Your task to perform on an android device: Open calendar and show me the third week of next month Image 0: 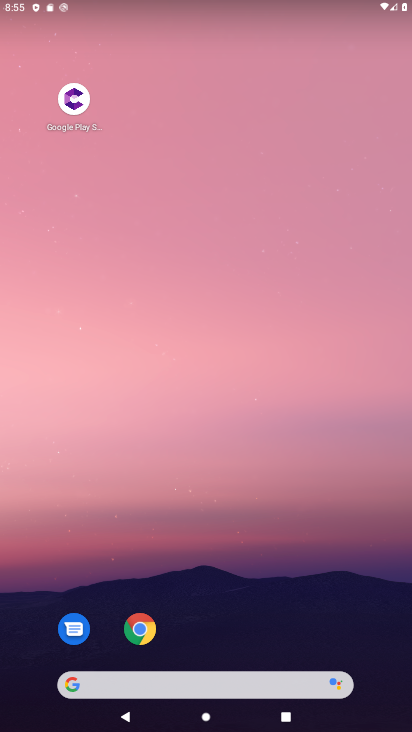
Step 0: drag from (211, 574) to (402, 38)
Your task to perform on an android device: Open calendar and show me the third week of next month Image 1: 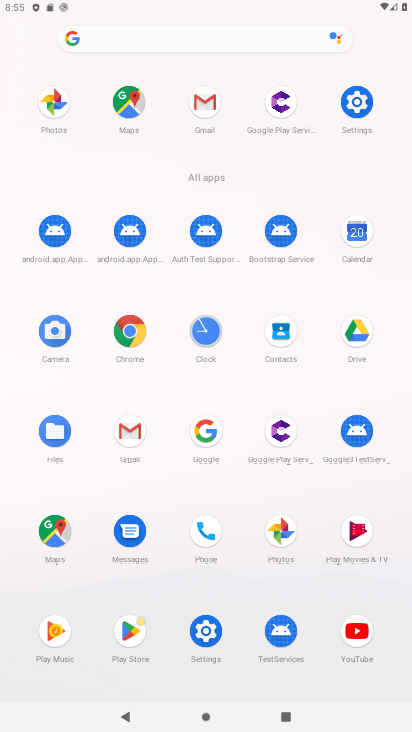
Step 1: click (363, 227)
Your task to perform on an android device: Open calendar and show me the third week of next month Image 2: 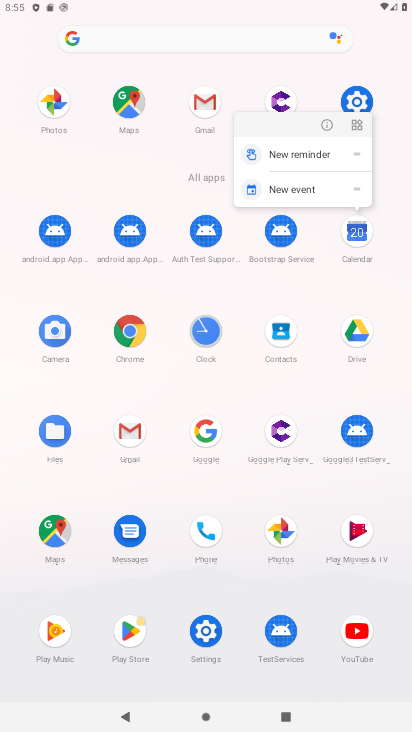
Step 2: click (362, 224)
Your task to perform on an android device: Open calendar and show me the third week of next month Image 3: 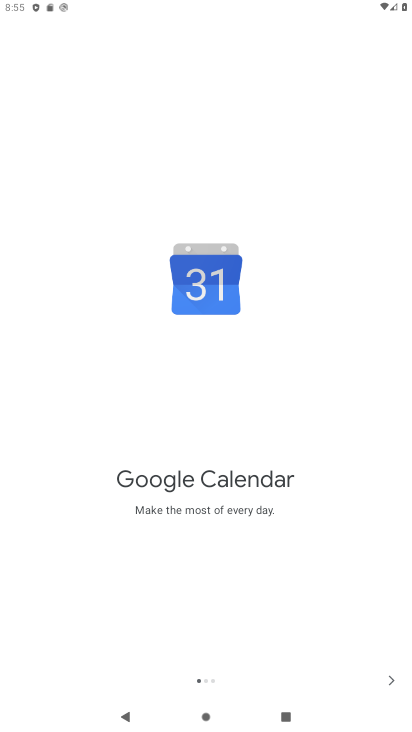
Step 3: click (389, 673)
Your task to perform on an android device: Open calendar and show me the third week of next month Image 4: 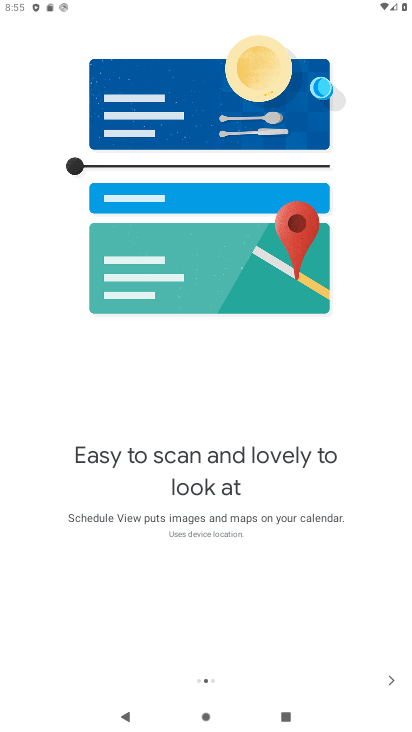
Step 4: click (389, 675)
Your task to perform on an android device: Open calendar and show me the third week of next month Image 5: 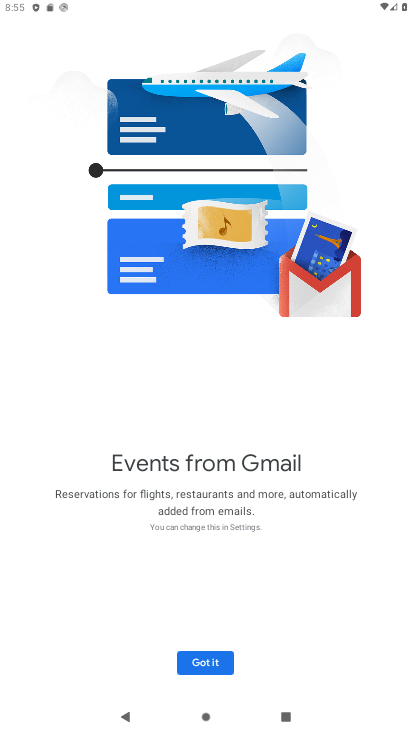
Step 5: click (206, 658)
Your task to perform on an android device: Open calendar and show me the third week of next month Image 6: 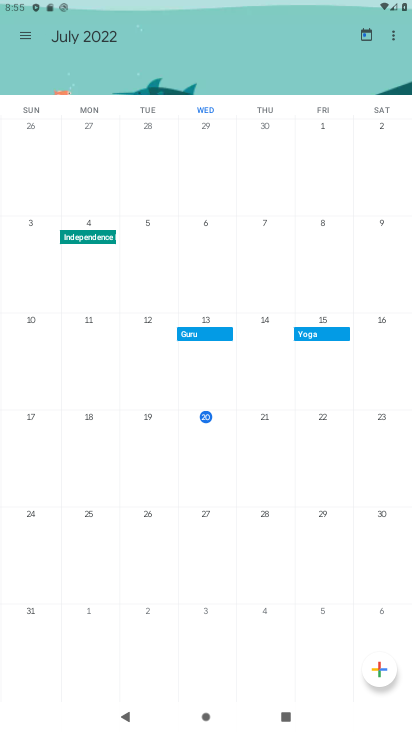
Step 6: drag from (370, 427) to (6, 444)
Your task to perform on an android device: Open calendar and show me the third week of next month Image 7: 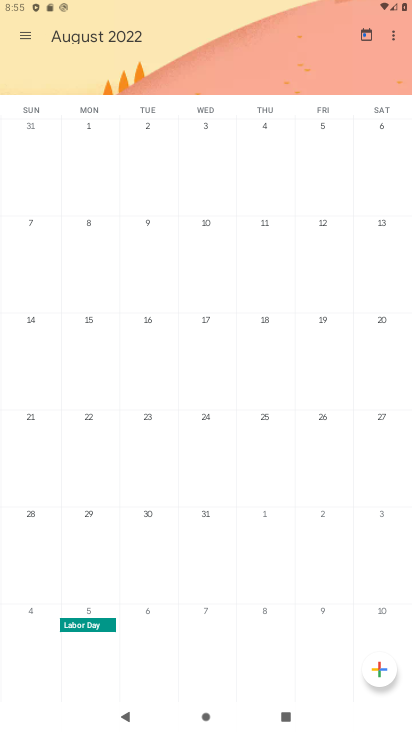
Step 7: click (41, 418)
Your task to perform on an android device: Open calendar and show me the third week of next month Image 8: 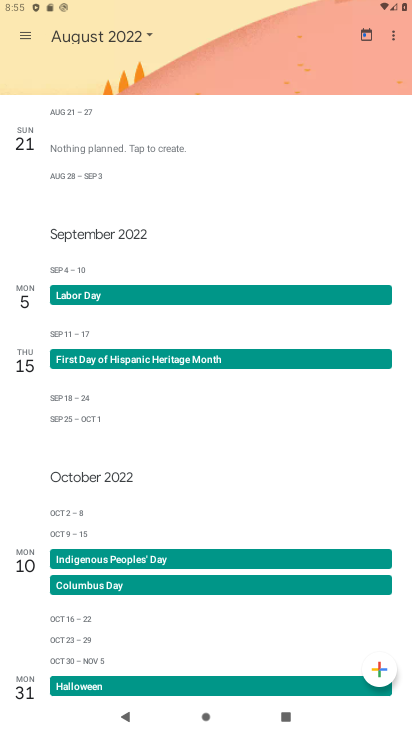
Step 8: task complete